Your task to perform on an android device: clear history in the chrome app Image 0: 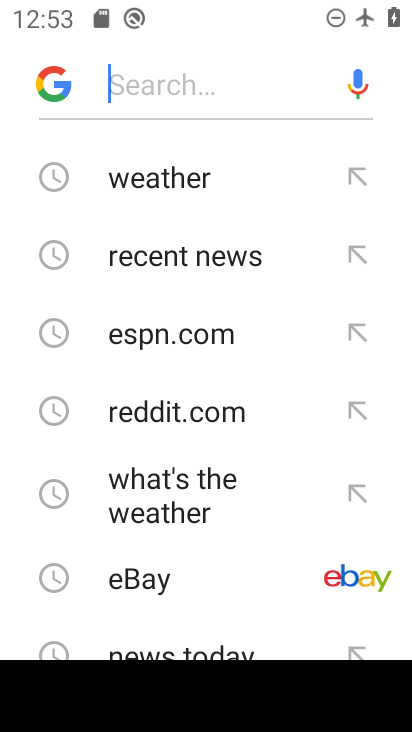
Step 0: press home button
Your task to perform on an android device: clear history in the chrome app Image 1: 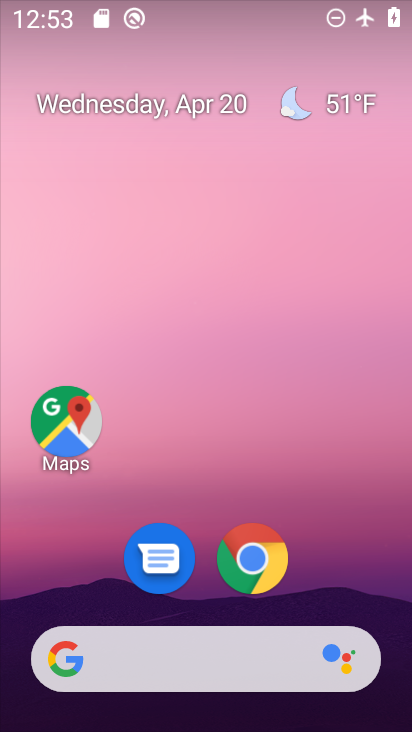
Step 1: click (249, 551)
Your task to perform on an android device: clear history in the chrome app Image 2: 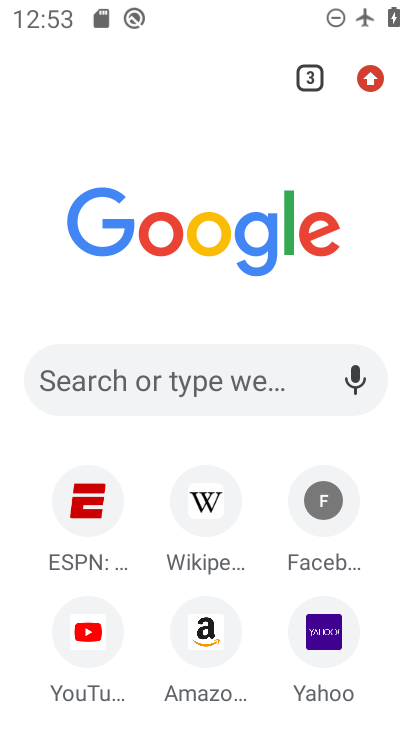
Step 2: click (367, 78)
Your task to perform on an android device: clear history in the chrome app Image 3: 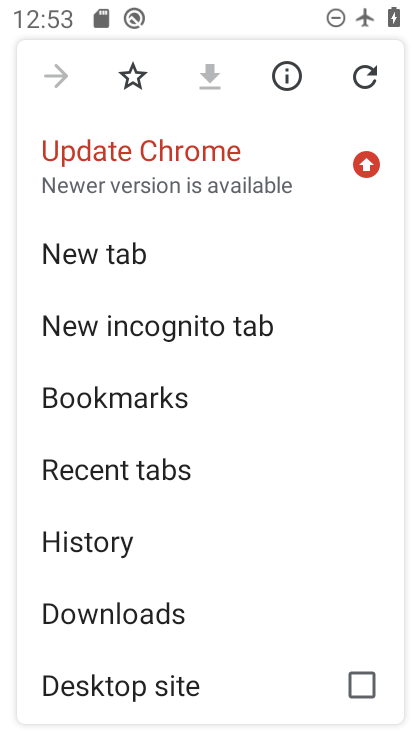
Step 3: click (88, 536)
Your task to perform on an android device: clear history in the chrome app Image 4: 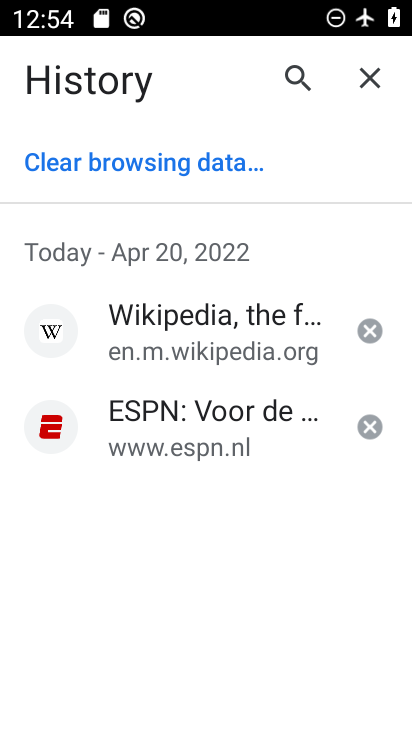
Step 4: click (132, 163)
Your task to perform on an android device: clear history in the chrome app Image 5: 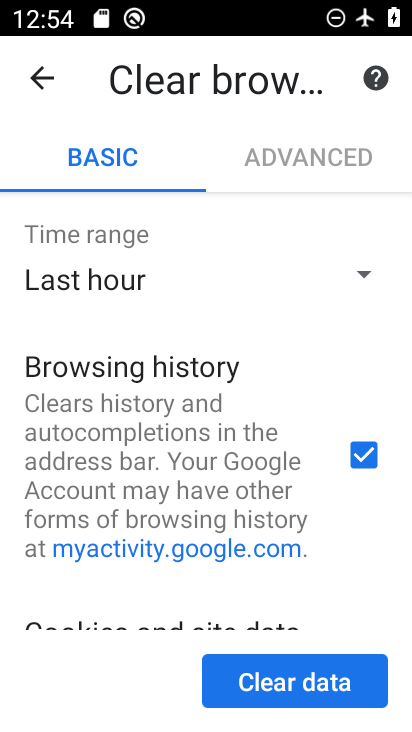
Step 5: drag from (313, 561) to (284, 286)
Your task to perform on an android device: clear history in the chrome app Image 6: 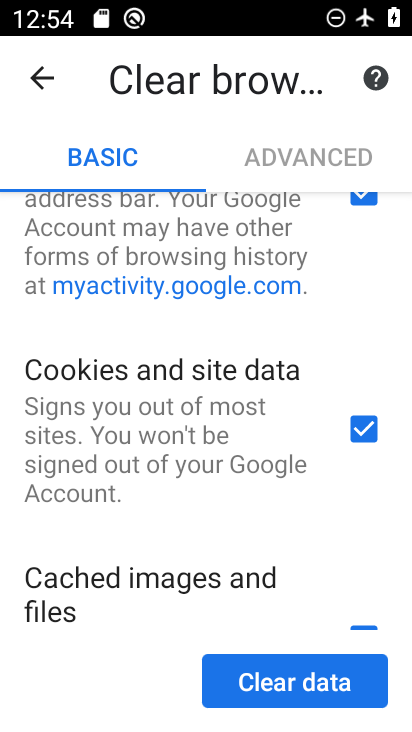
Step 6: click (362, 427)
Your task to perform on an android device: clear history in the chrome app Image 7: 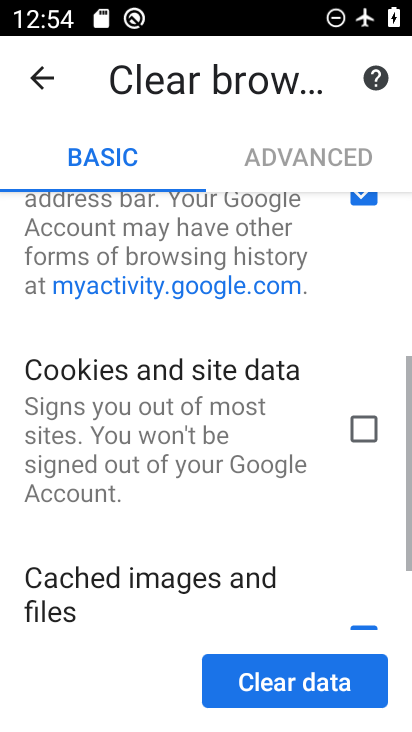
Step 7: drag from (315, 541) to (302, 233)
Your task to perform on an android device: clear history in the chrome app Image 8: 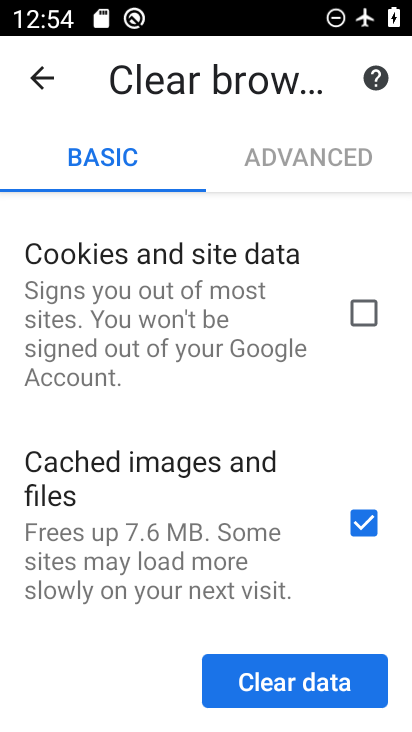
Step 8: click (358, 527)
Your task to perform on an android device: clear history in the chrome app Image 9: 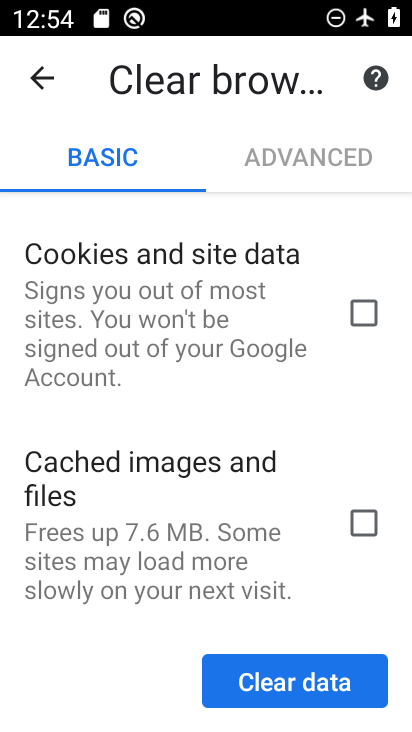
Step 9: click (296, 683)
Your task to perform on an android device: clear history in the chrome app Image 10: 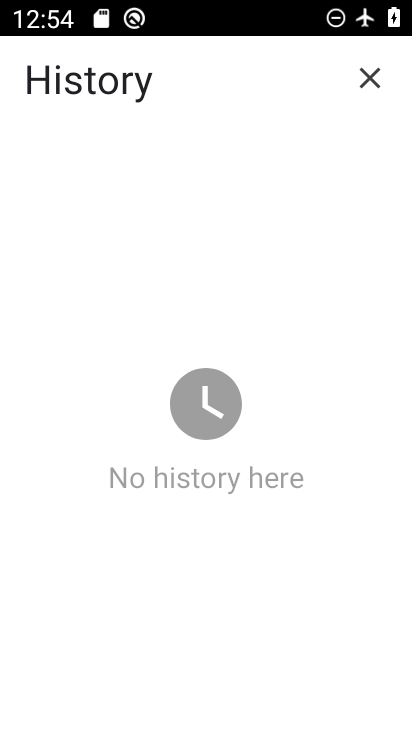
Step 10: task complete